Your task to perform on an android device: Open the phone app and click the voicemail tab. Image 0: 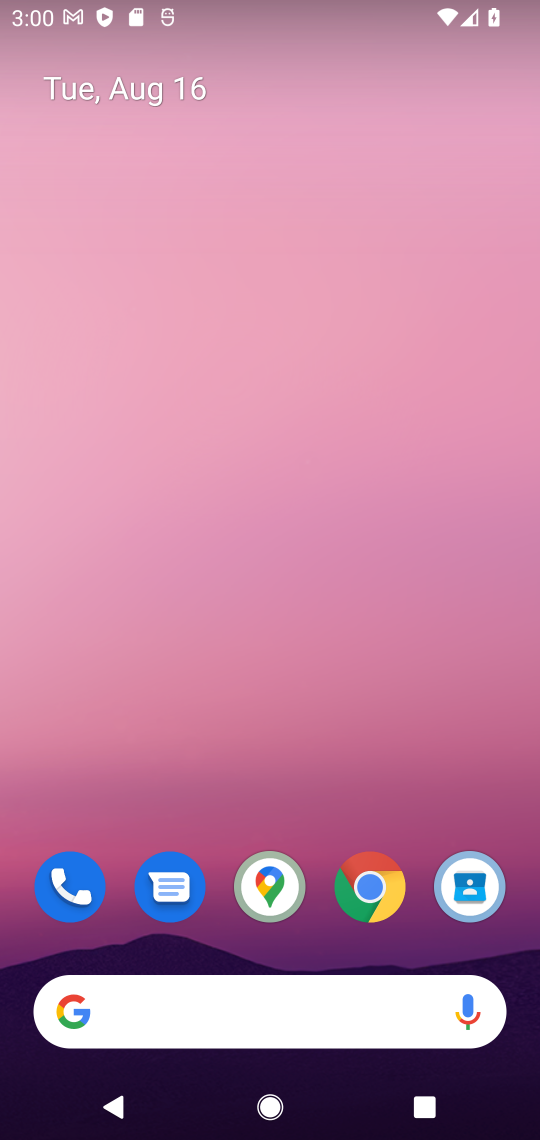
Step 0: drag from (282, 706) to (282, 163)
Your task to perform on an android device: Open the phone app and click the voicemail tab. Image 1: 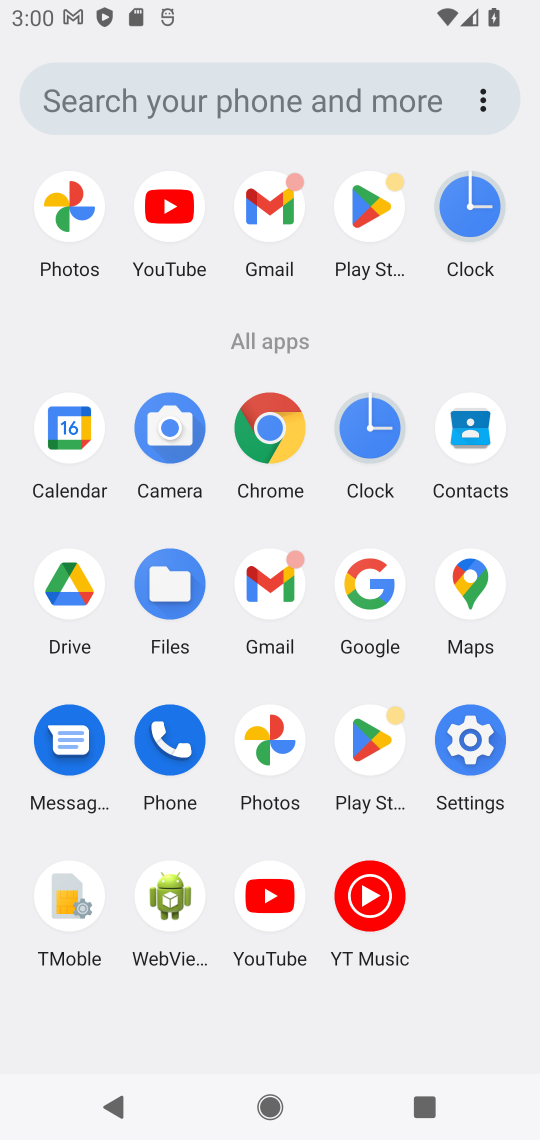
Step 1: click (158, 743)
Your task to perform on an android device: Open the phone app and click the voicemail tab. Image 2: 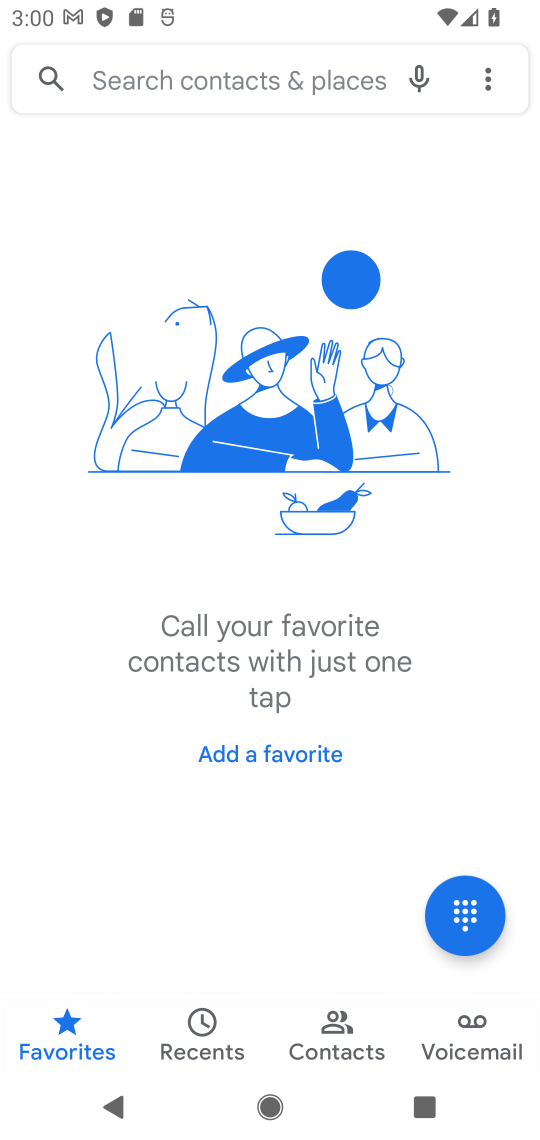
Step 2: click (501, 1031)
Your task to perform on an android device: Open the phone app and click the voicemail tab. Image 3: 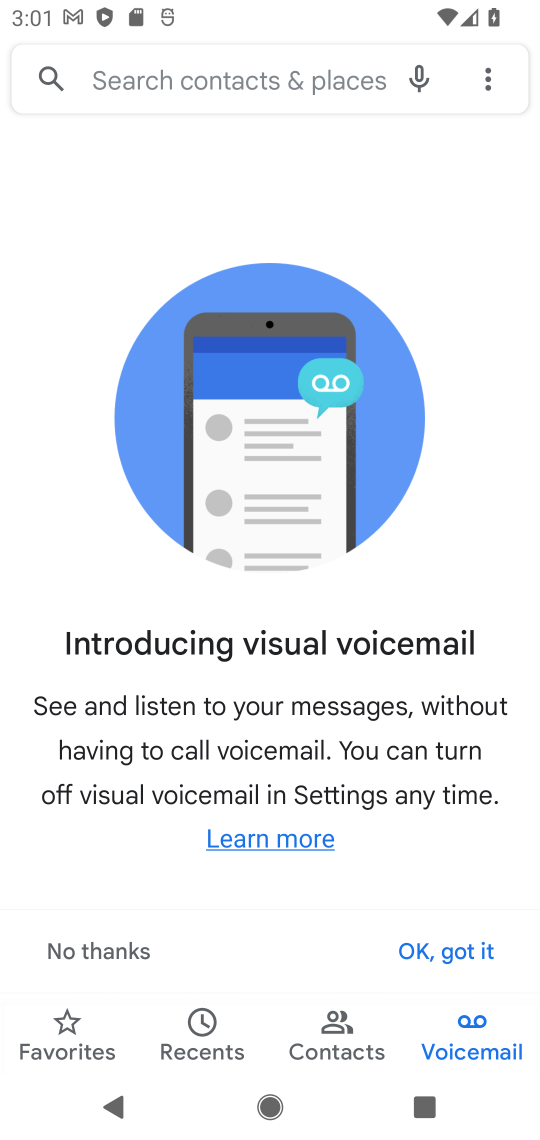
Step 3: task complete